Your task to perform on an android device: Go to display settings Image 0: 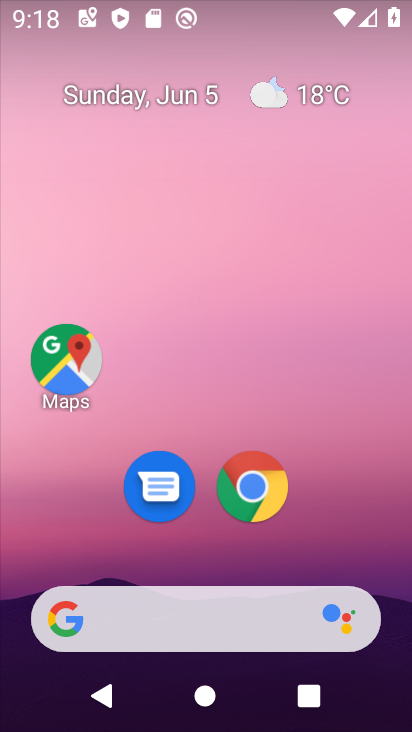
Step 0: drag from (369, 511) to (345, 143)
Your task to perform on an android device: Go to display settings Image 1: 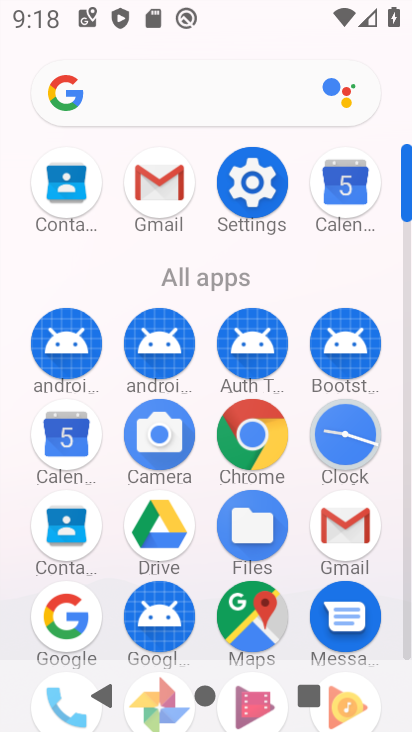
Step 1: click (241, 194)
Your task to perform on an android device: Go to display settings Image 2: 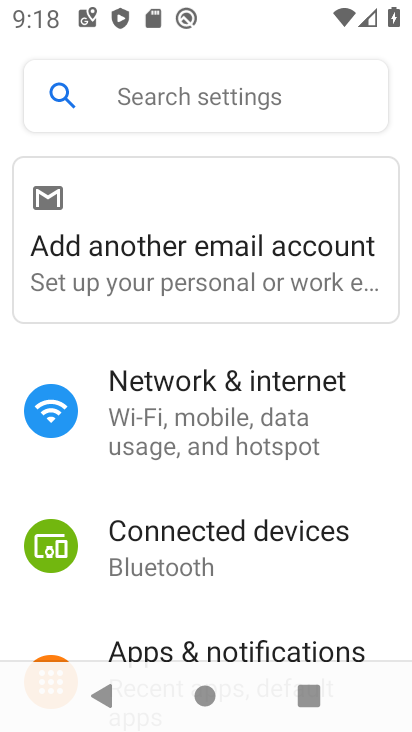
Step 2: drag from (218, 592) to (225, 321)
Your task to perform on an android device: Go to display settings Image 3: 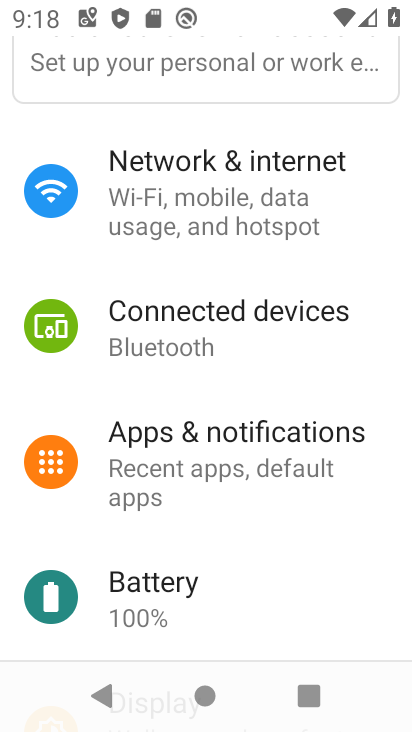
Step 3: drag from (250, 515) to (252, 268)
Your task to perform on an android device: Go to display settings Image 4: 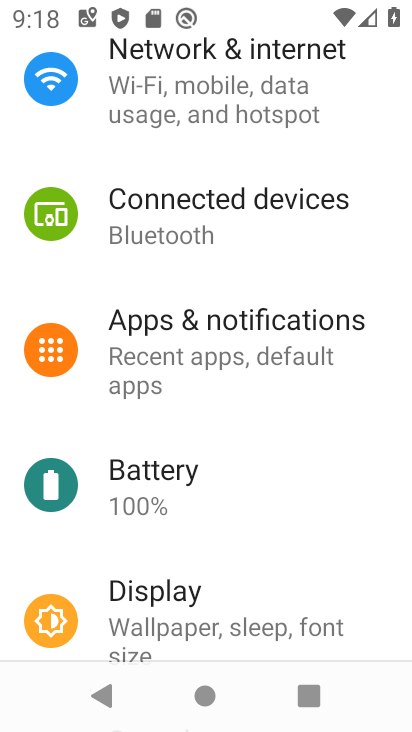
Step 4: click (241, 616)
Your task to perform on an android device: Go to display settings Image 5: 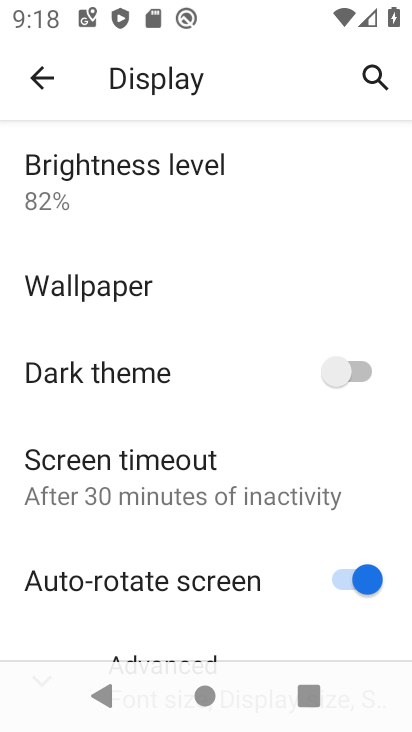
Step 5: drag from (190, 519) to (201, 280)
Your task to perform on an android device: Go to display settings Image 6: 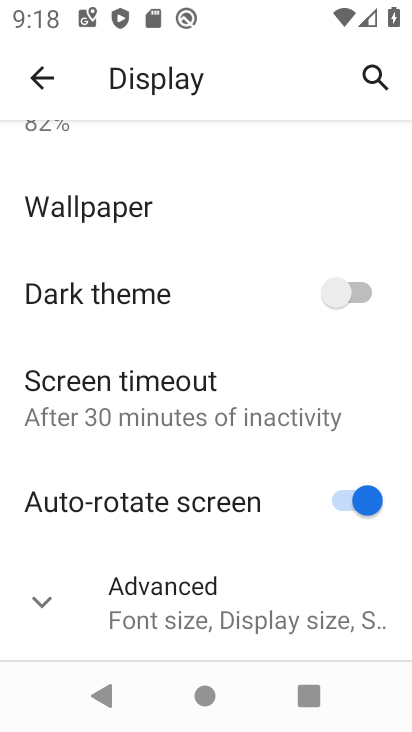
Step 6: click (150, 605)
Your task to perform on an android device: Go to display settings Image 7: 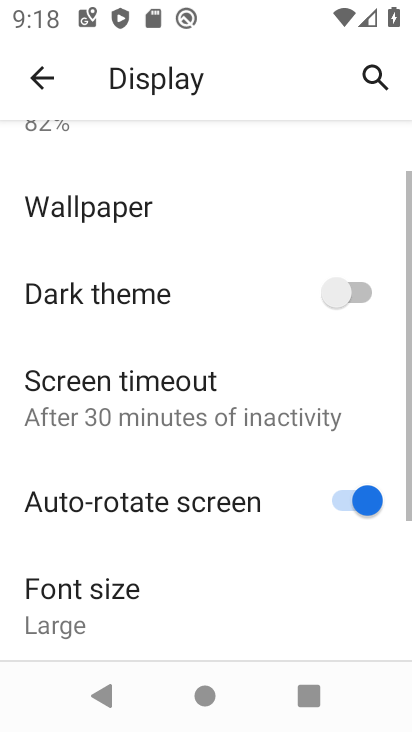
Step 7: task complete